Your task to perform on an android device: open app "VLC for Android" (install if not already installed) Image 0: 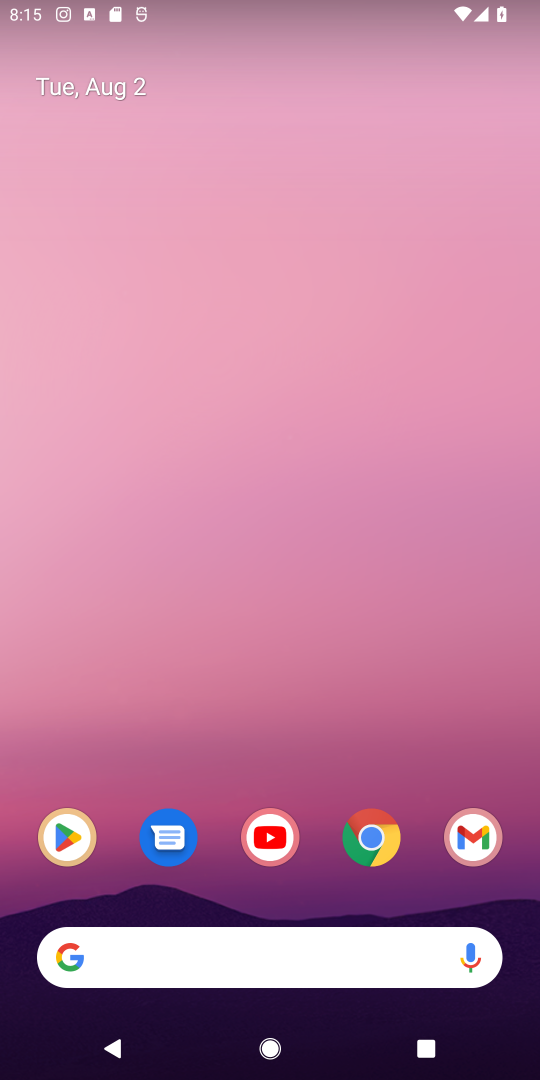
Step 0: click (35, 827)
Your task to perform on an android device: open app "VLC for Android" (install if not already installed) Image 1: 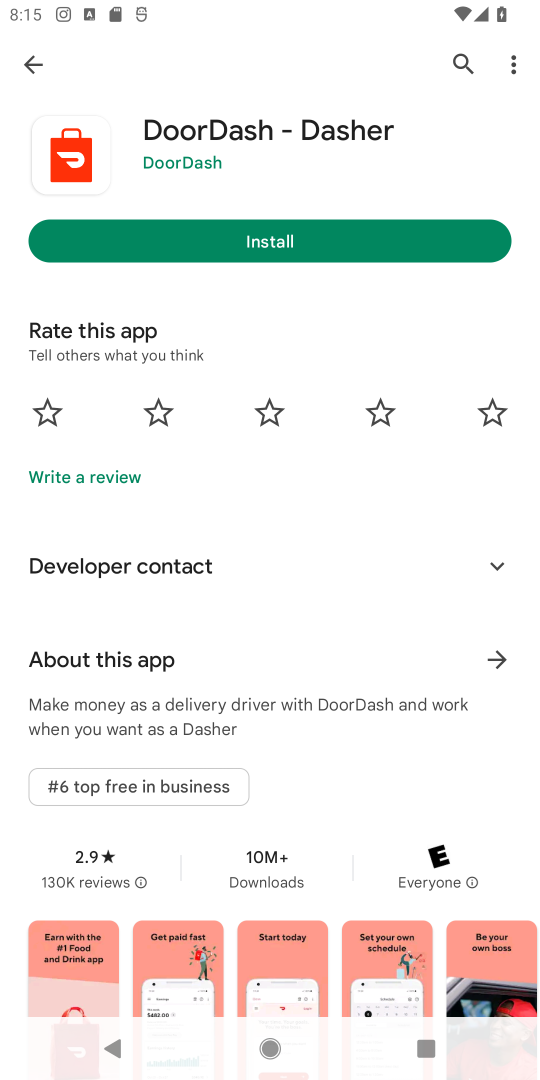
Step 1: click (457, 66)
Your task to perform on an android device: open app "VLC for Android" (install if not already installed) Image 2: 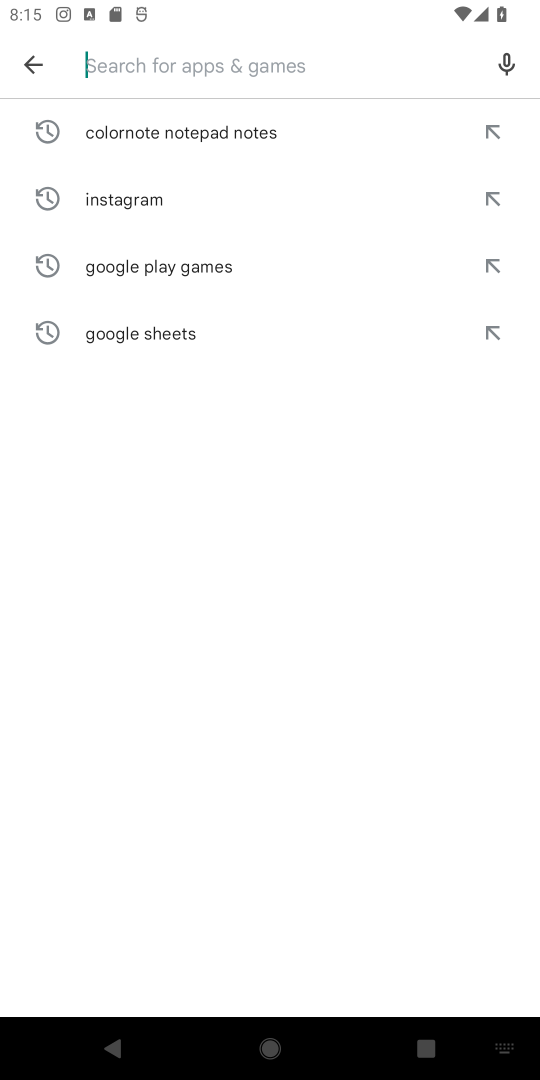
Step 2: type "VLC for Android"
Your task to perform on an android device: open app "VLC for Android" (install if not already installed) Image 3: 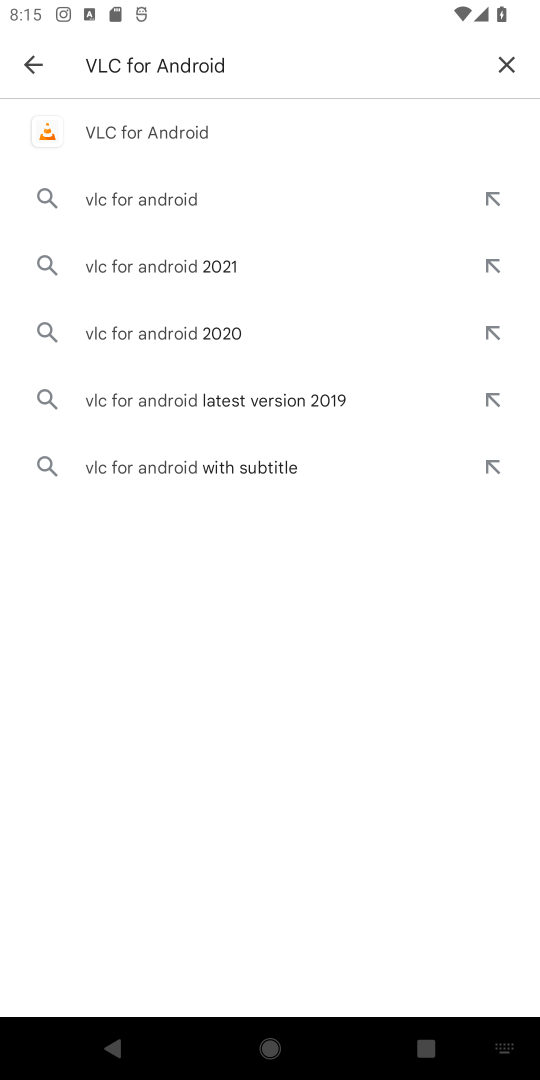
Step 3: click (145, 137)
Your task to perform on an android device: open app "VLC for Android" (install if not already installed) Image 4: 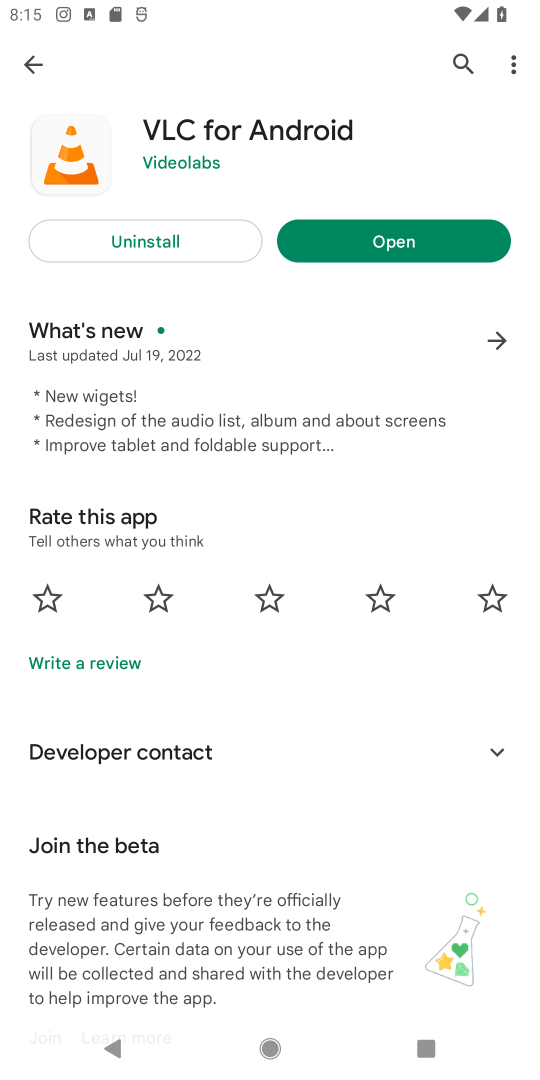
Step 4: click (330, 251)
Your task to perform on an android device: open app "VLC for Android" (install if not already installed) Image 5: 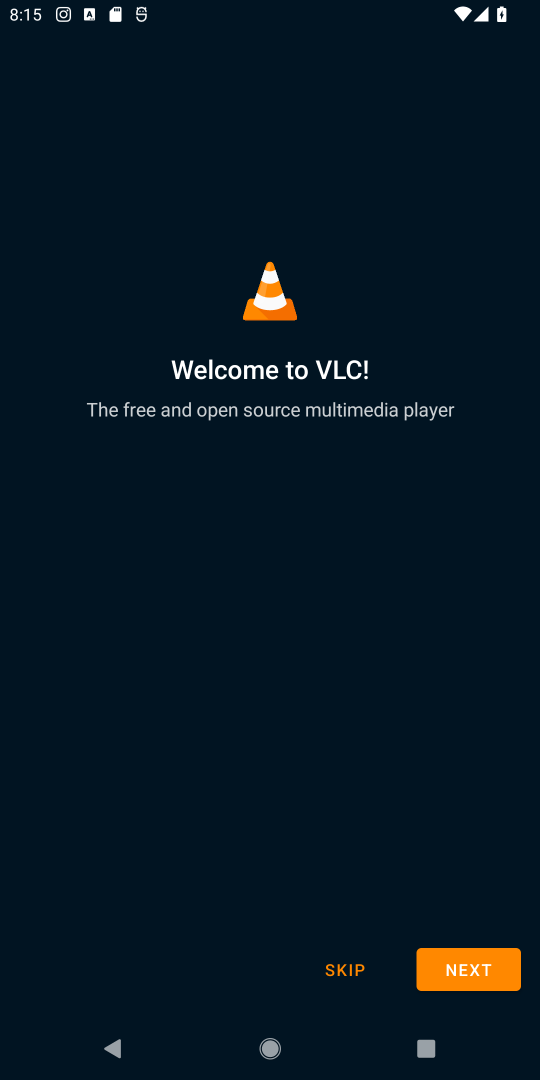
Step 5: task complete